Your task to perform on an android device: Open Google Chrome Image 0: 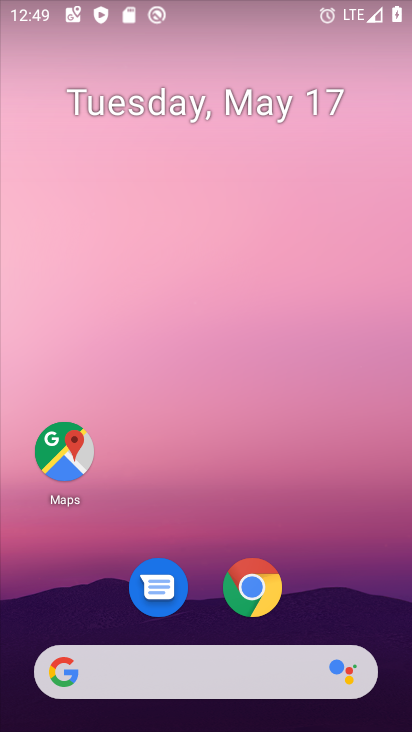
Step 0: drag from (384, 637) to (292, 165)
Your task to perform on an android device: Open Google Chrome Image 1: 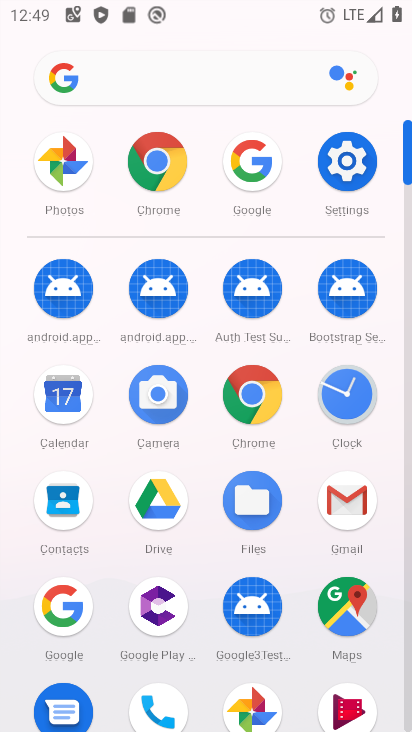
Step 1: click (245, 398)
Your task to perform on an android device: Open Google Chrome Image 2: 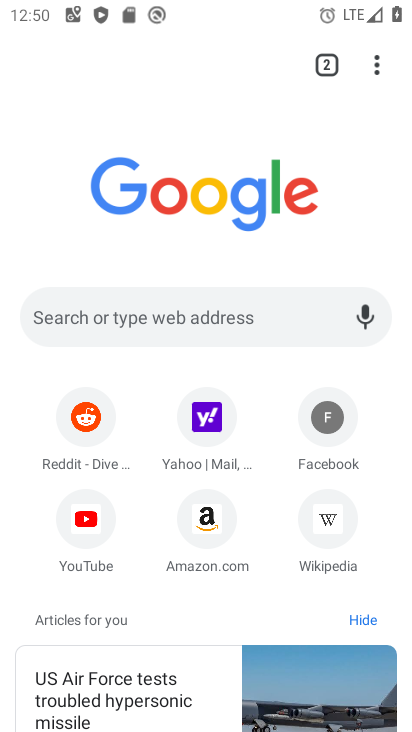
Step 2: task complete